Your task to perform on an android device: turn off smart reply in the gmail app Image 0: 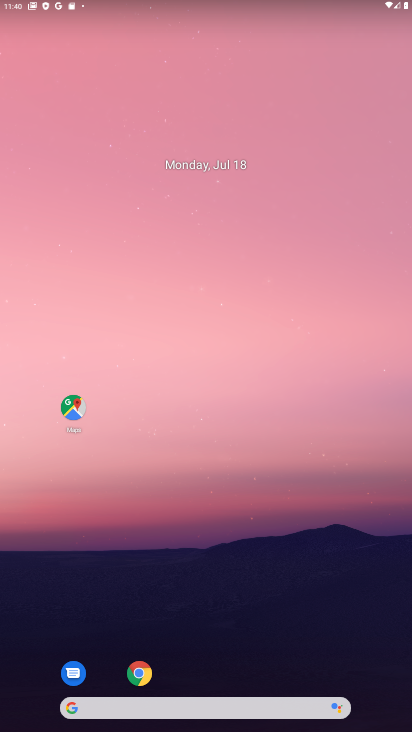
Step 0: drag from (155, 719) to (84, 16)
Your task to perform on an android device: turn off smart reply in the gmail app Image 1: 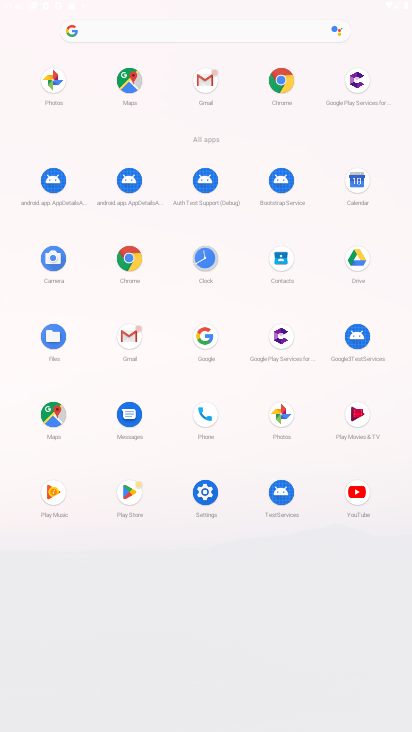
Step 1: click (198, 77)
Your task to perform on an android device: turn off smart reply in the gmail app Image 2: 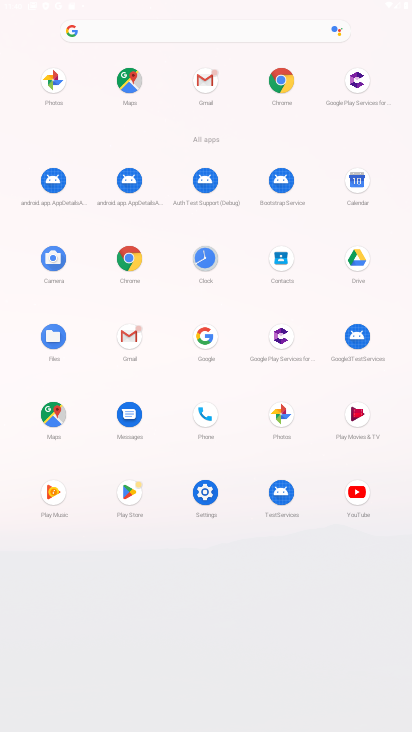
Step 2: click (198, 77)
Your task to perform on an android device: turn off smart reply in the gmail app Image 3: 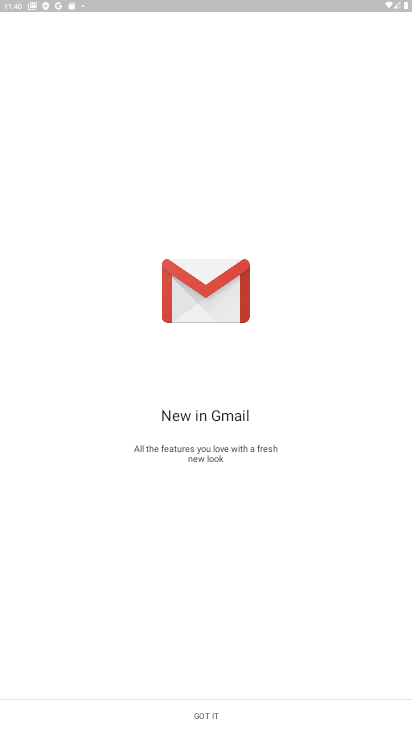
Step 3: click (191, 721)
Your task to perform on an android device: turn off smart reply in the gmail app Image 4: 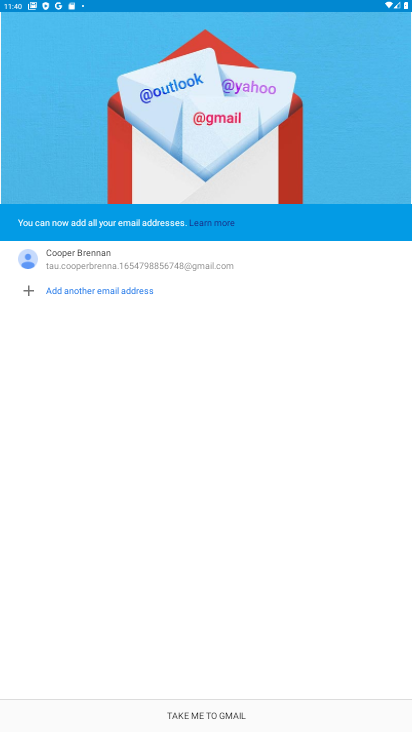
Step 4: click (188, 718)
Your task to perform on an android device: turn off smart reply in the gmail app Image 5: 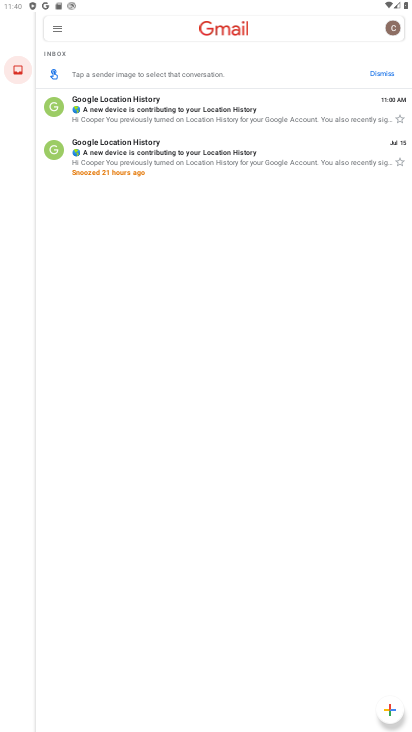
Step 5: click (57, 27)
Your task to perform on an android device: turn off smart reply in the gmail app Image 6: 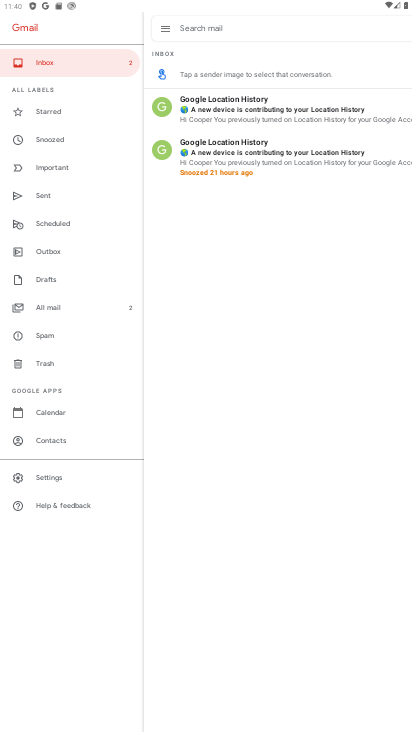
Step 6: click (64, 483)
Your task to perform on an android device: turn off smart reply in the gmail app Image 7: 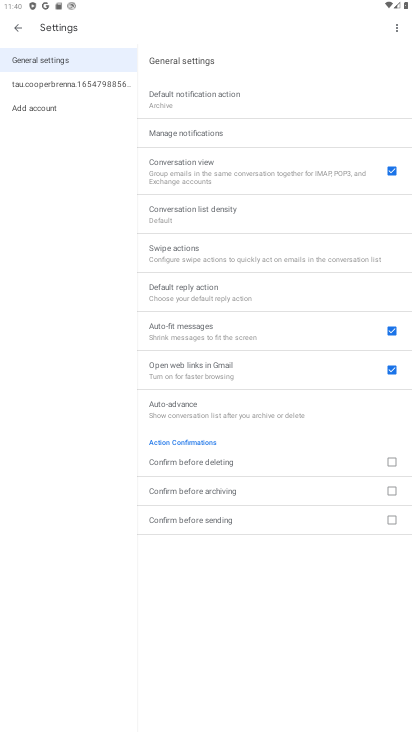
Step 7: click (69, 81)
Your task to perform on an android device: turn off smart reply in the gmail app Image 8: 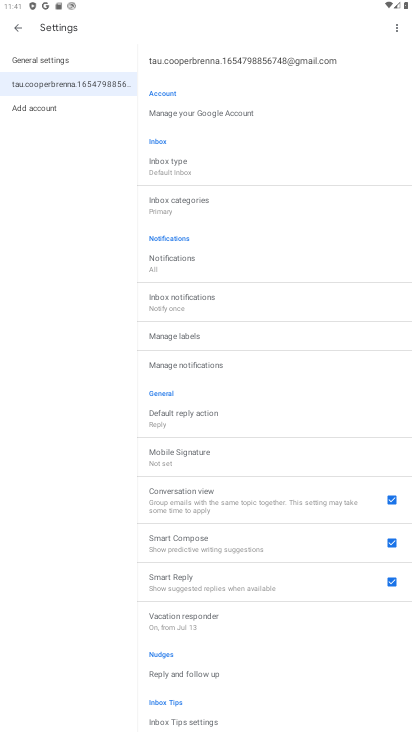
Step 8: click (386, 578)
Your task to perform on an android device: turn off smart reply in the gmail app Image 9: 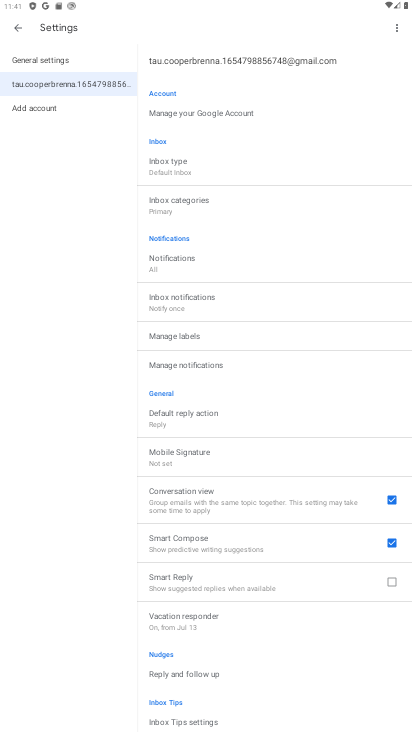
Step 9: task complete